Your task to perform on an android device: Go to Android settings Image 0: 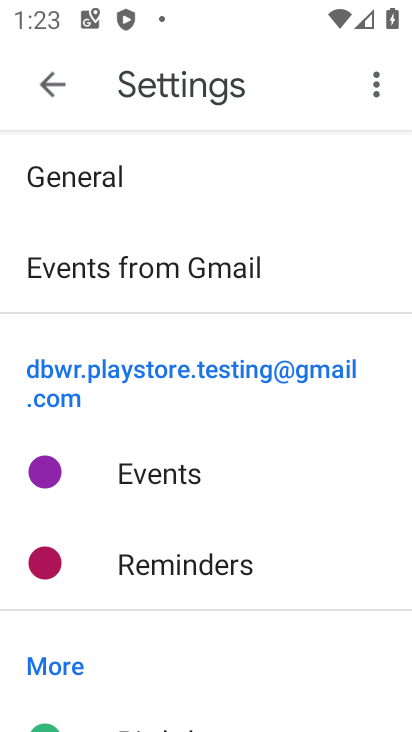
Step 0: press home button
Your task to perform on an android device: Go to Android settings Image 1: 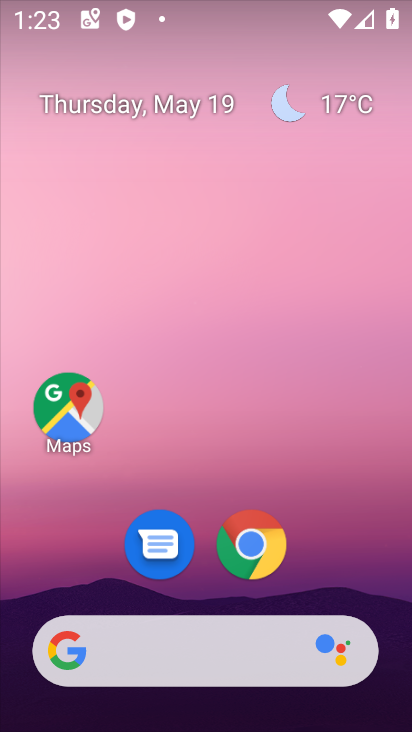
Step 1: drag from (224, 723) to (222, 191)
Your task to perform on an android device: Go to Android settings Image 2: 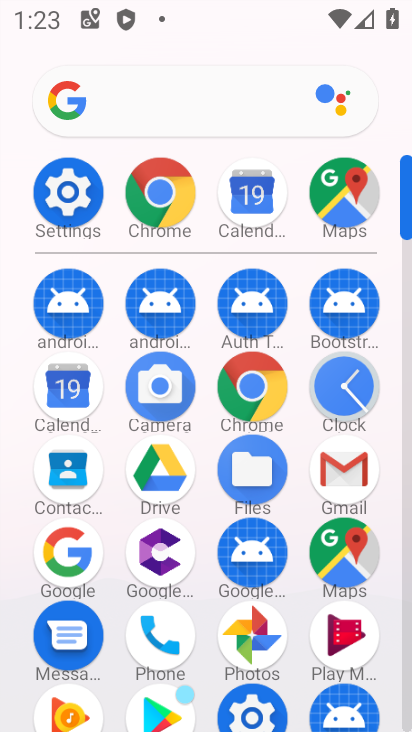
Step 2: click (79, 197)
Your task to perform on an android device: Go to Android settings Image 3: 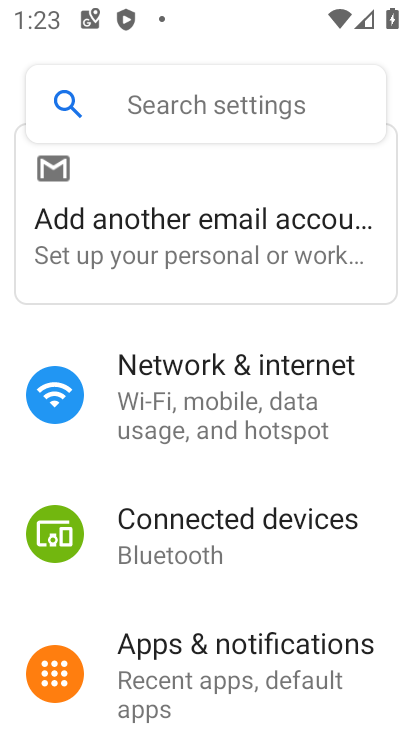
Step 3: task complete